Your task to perform on an android device: stop showing notifications on the lock screen Image 0: 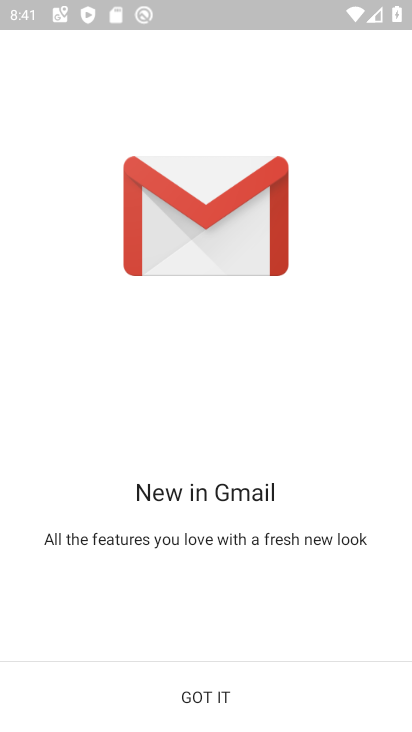
Step 0: press home button
Your task to perform on an android device: stop showing notifications on the lock screen Image 1: 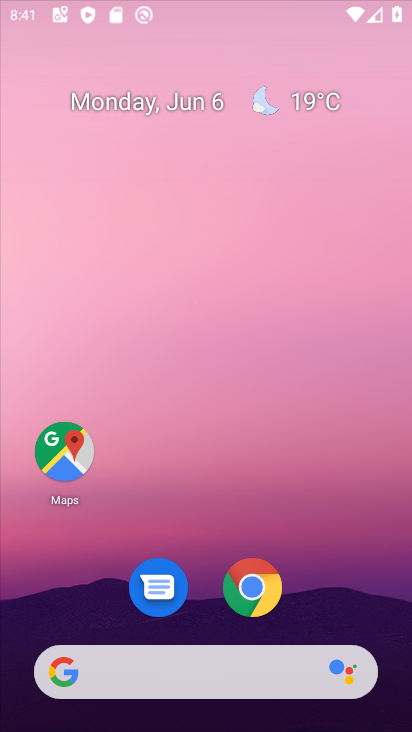
Step 1: drag from (174, 643) to (294, 114)
Your task to perform on an android device: stop showing notifications on the lock screen Image 2: 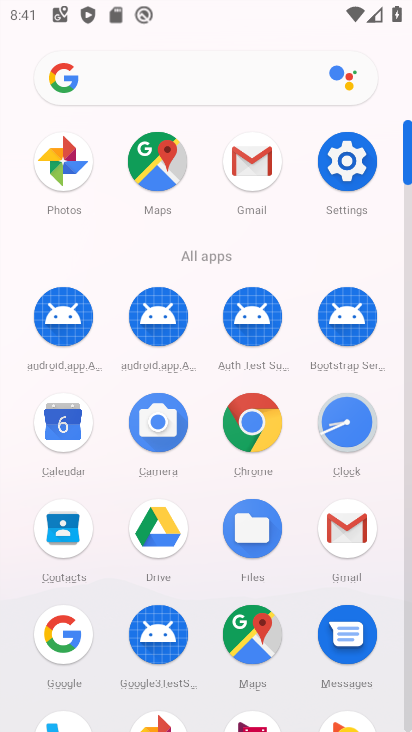
Step 2: drag from (192, 632) to (306, 310)
Your task to perform on an android device: stop showing notifications on the lock screen Image 3: 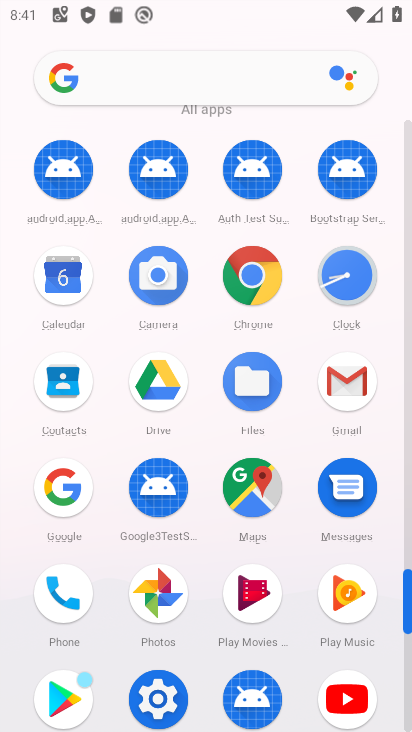
Step 3: click (157, 703)
Your task to perform on an android device: stop showing notifications on the lock screen Image 4: 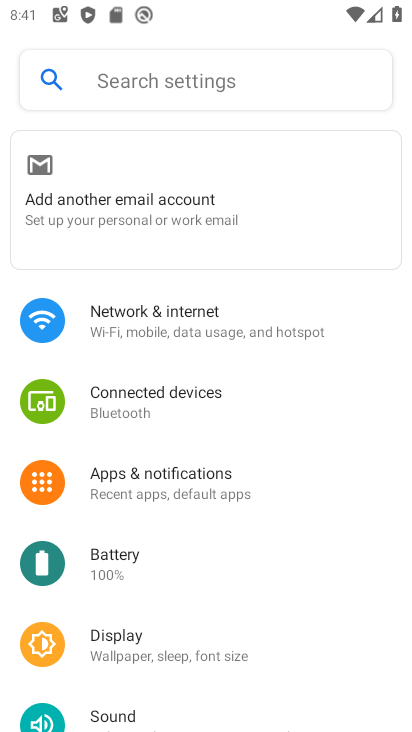
Step 4: click (201, 498)
Your task to perform on an android device: stop showing notifications on the lock screen Image 5: 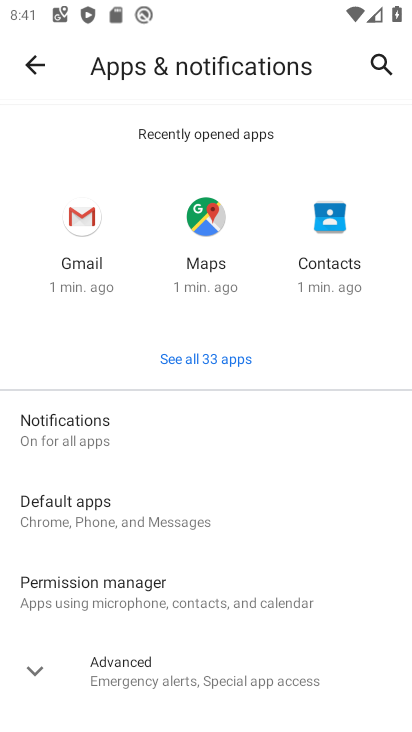
Step 5: click (153, 448)
Your task to perform on an android device: stop showing notifications on the lock screen Image 6: 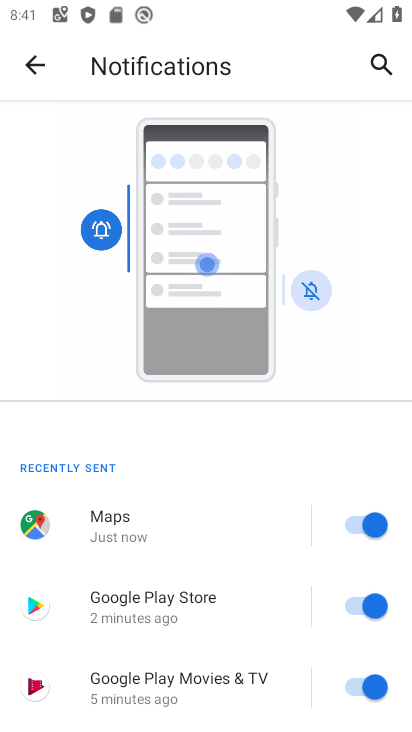
Step 6: drag from (169, 597) to (328, 175)
Your task to perform on an android device: stop showing notifications on the lock screen Image 7: 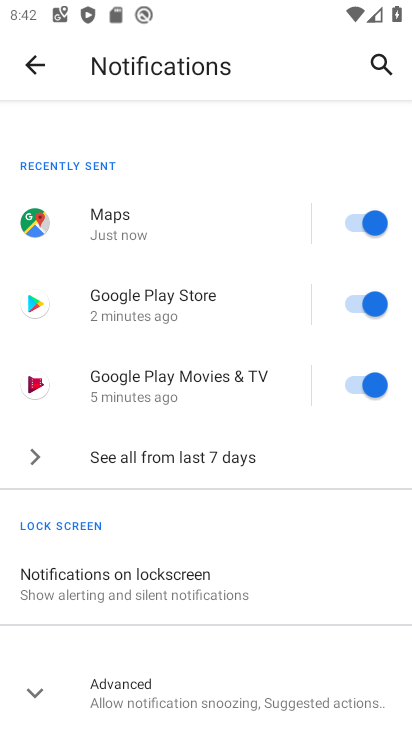
Step 7: click (209, 597)
Your task to perform on an android device: stop showing notifications on the lock screen Image 8: 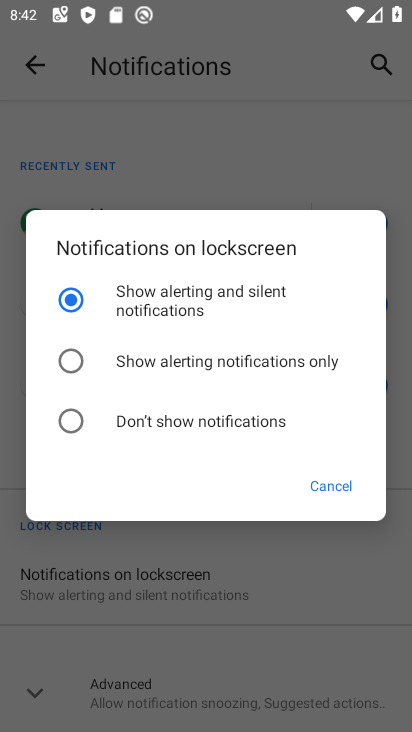
Step 8: click (228, 426)
Your task to perform on an android device: stop showing notifications on the lock screen Image 9: 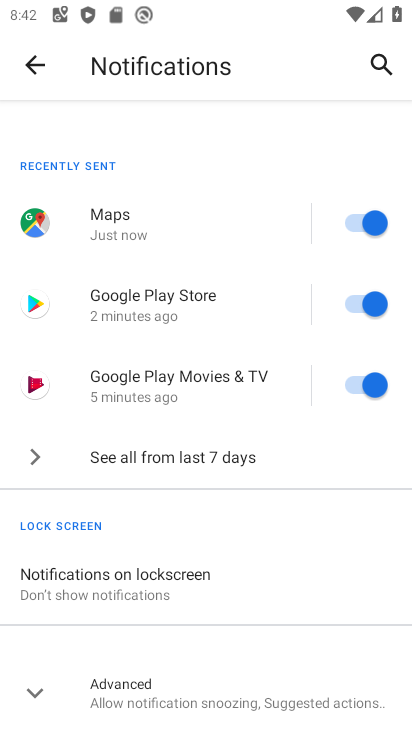
Step 9: task complete